Your task to perform on an android device: change alarm snooze length Image 0: 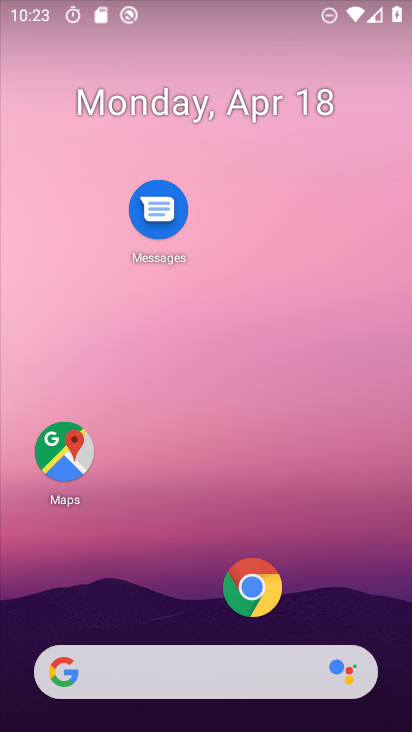
Step 0: drag from (171, 572) to (261, 16)
Your task to perform on an android device: change alarm snooze length Image 1: 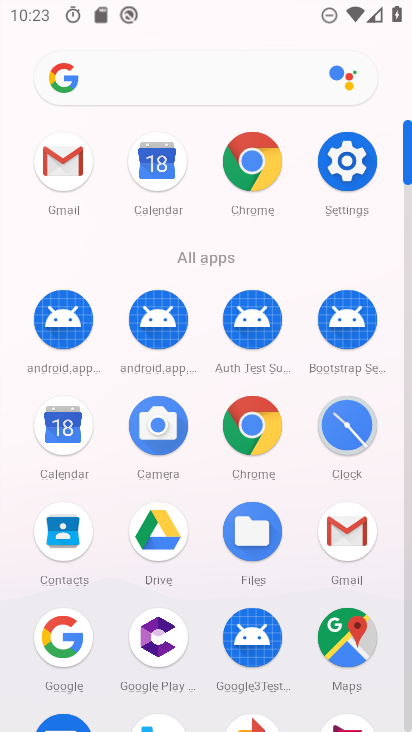
Step 1: click (358, 436)
Your task to perform on an android device: change alarm snooze length Image 2: 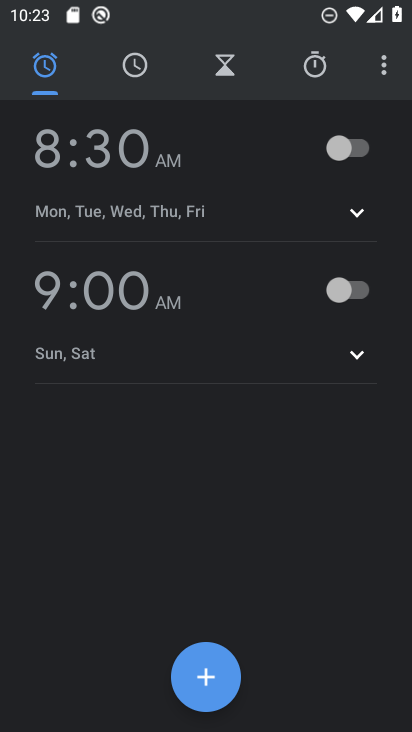
Step 2: click (389, 76)
Your task to perform on an android device: change alarm snooze length Image 3: 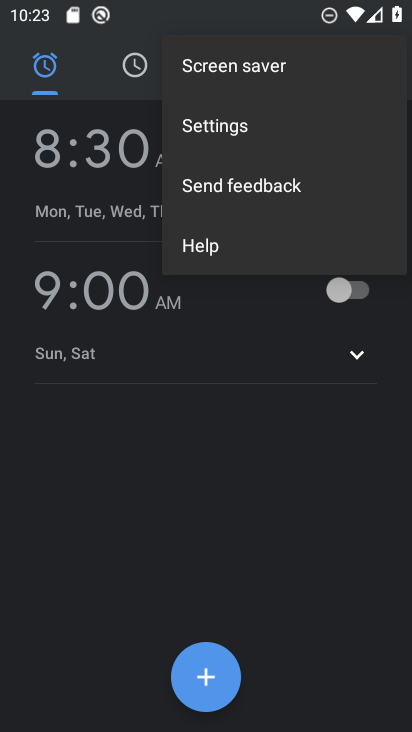
Step 3: click (228, 137)
Your task to perform on an android device: change alarm snooze length Image 4: 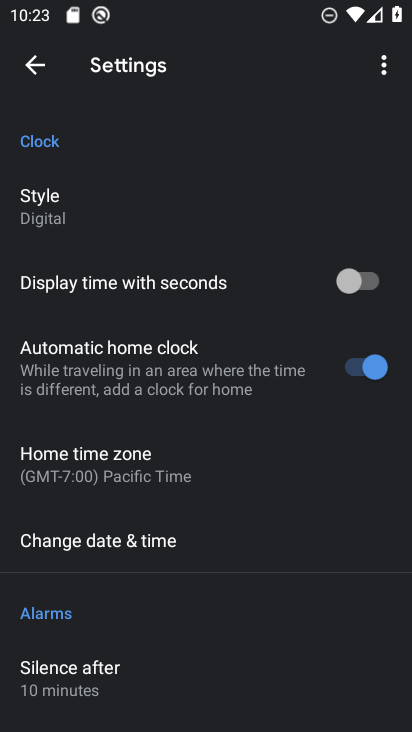
Step 4: drag from (99, 667) to (180, 274)
Your task to perform on an android device: change alarm snooze length Image 5: 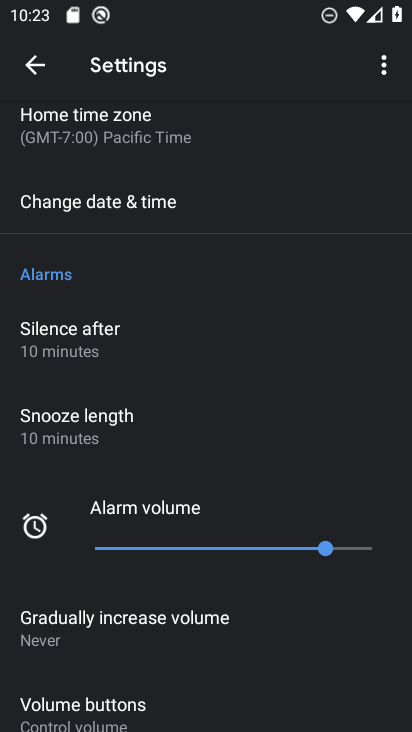
Step 5: click (106, 438)
Your task to perform on an android device: change alarm snooze length Image 6: 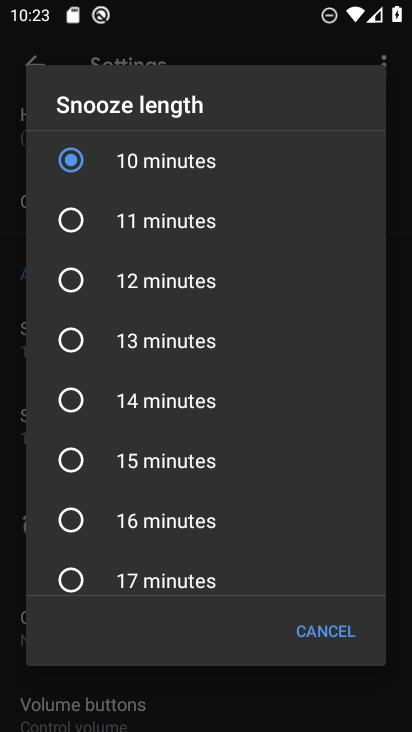
Step 6: click (79, 348)
Your task to perform on an android device: change alarm snooze length Image 7: 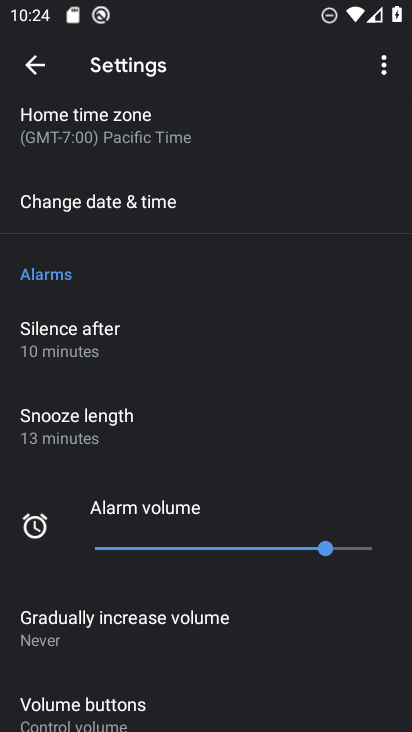
Step 7: task complete